Your task to perform on an android device: Go to location settings Image 0: 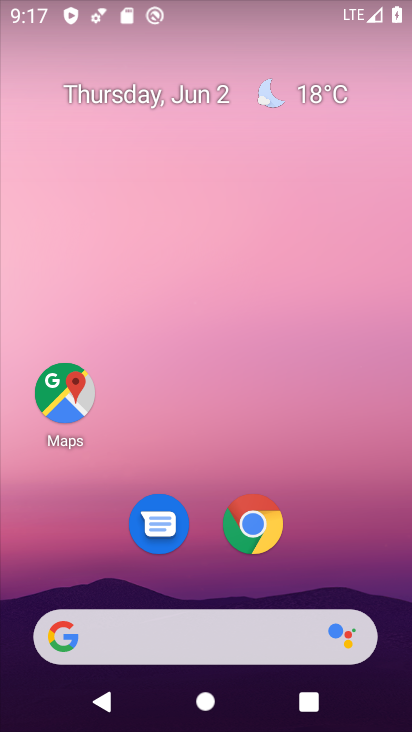
Step 0: drag from (324, 544) to (262, 1)
Your task to perform on an android device: Go to location settings Image 1: 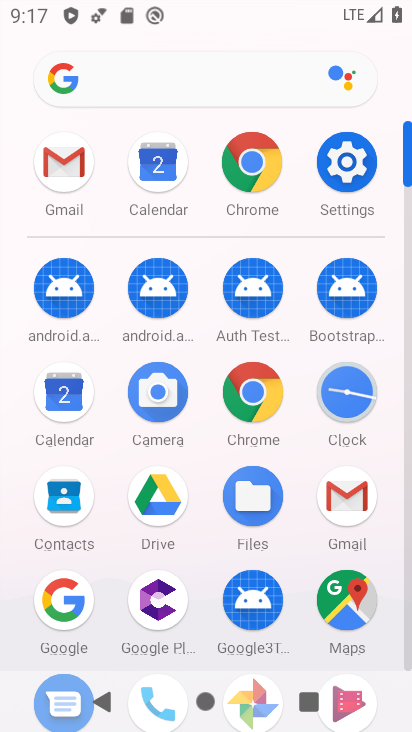
Step 1: click (352, 168)
Your task to perform on an android device: Go to location settings Image 2: 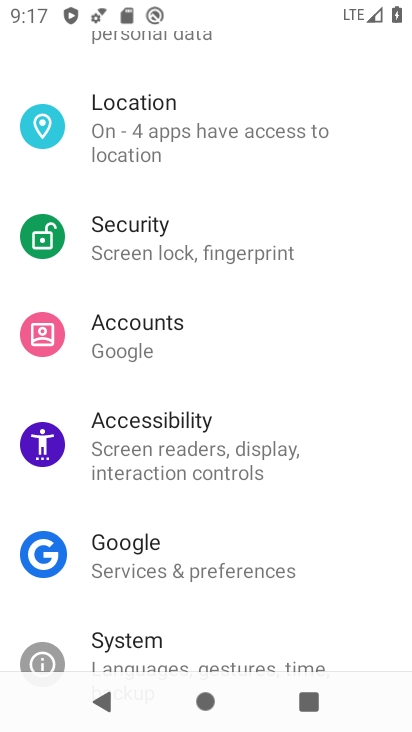
Step 2: click (198, 133)
Your task to perform on an android device: Go to location settings Image 3: 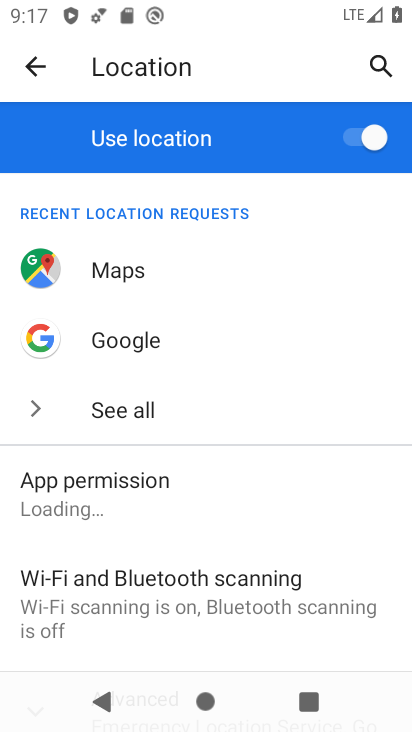
Step 3: task complete